Your task to perform on an android device: Open maps Image 0: 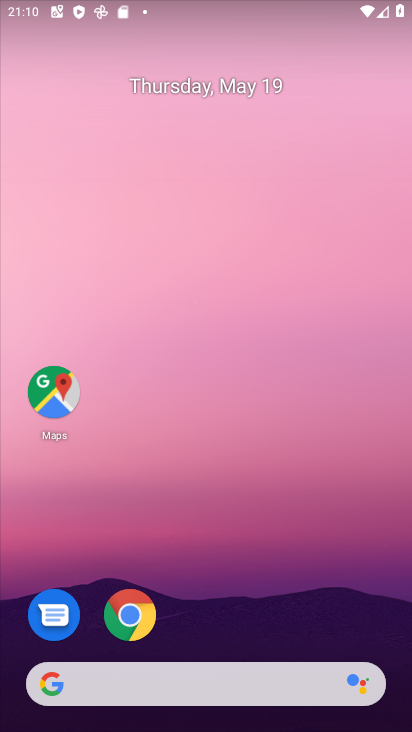
Step 0: click (71, 394)
Your task to perform on an android device: Open maps Image 1: 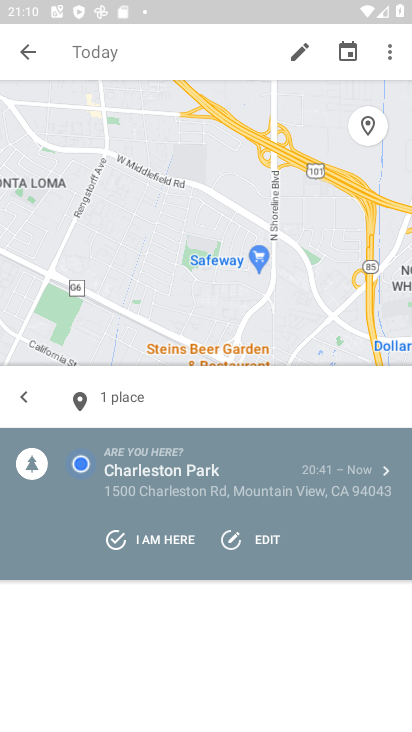
Step 1: task complete